Your task to perform on an android device: What time is it in Los Angeles? Image 0: 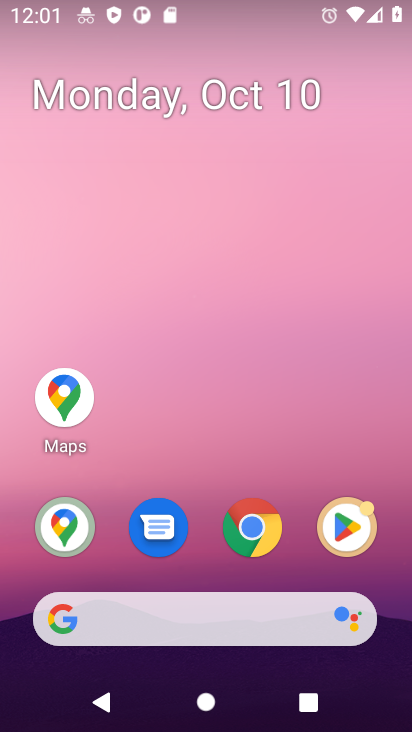
Step 0: click (253, 530)
Your task to perform on an android device: What time is it in Los Angeles? Image 1: 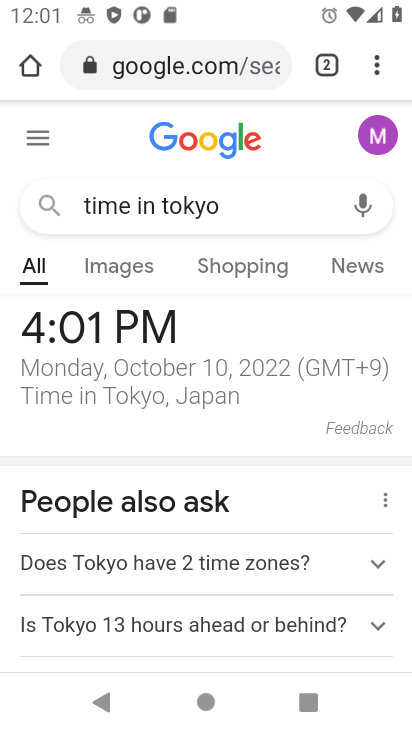
Step 1: click (203, 68)
Your task to perform on an android device: What time is it in Los Angeles? Image 2: 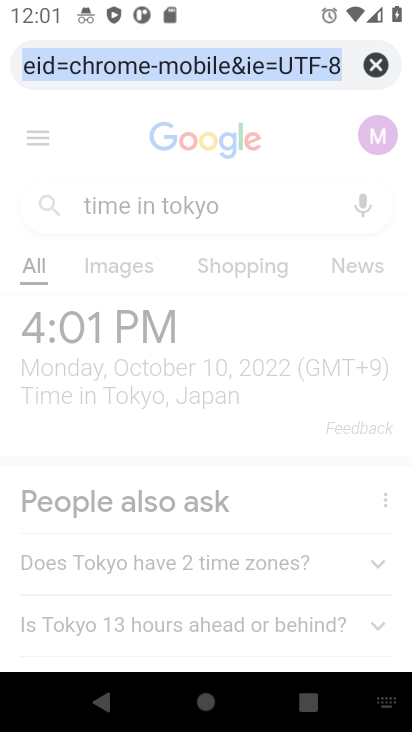
Step 2: type "time in los angeles ?"
Your task to perform on an android device: What time is it in Los Angeles? Image 3: 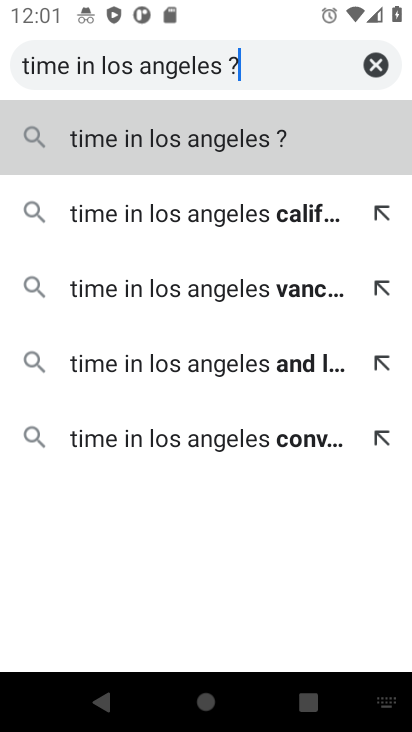
Step 3: click (208, 129)
Your task to perform on an android device: What time is it in Los Angeles? Image 4: 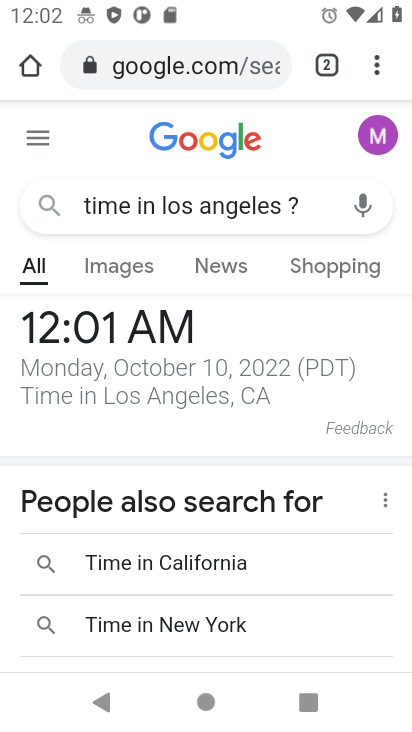
Step 4: task complete